Your task to perform on an android device: Search for "razer kraken" on target, select the first entry, add it to the cart, then select checkout. Image 0: 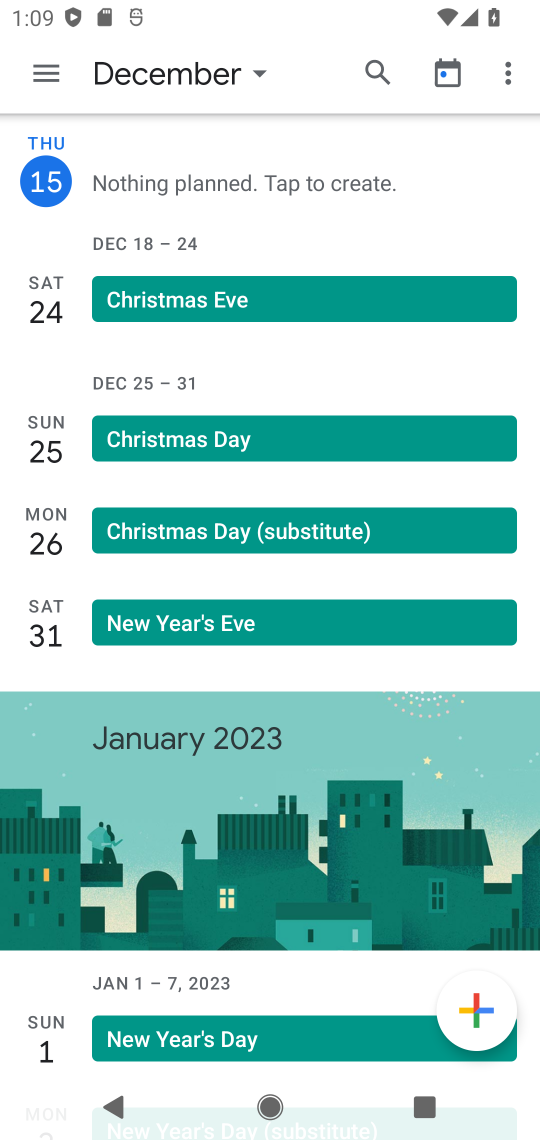
Step 0: press home button
Your task to perform on an android device: Search for "razer kraken" on target, select the first entry, add it to the cart, then select checkout. Image 1: 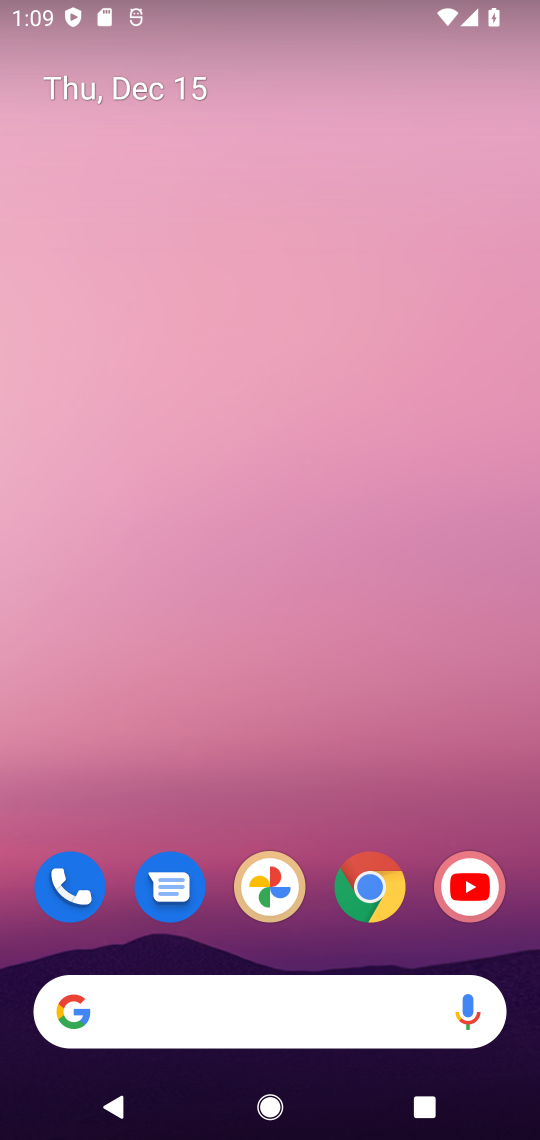
Step 1: click (381, 895)
Your task to perform on an android device: Search for "razer kraken" on target, select the first entry, add it to the cart, then select checkout. Image 2: 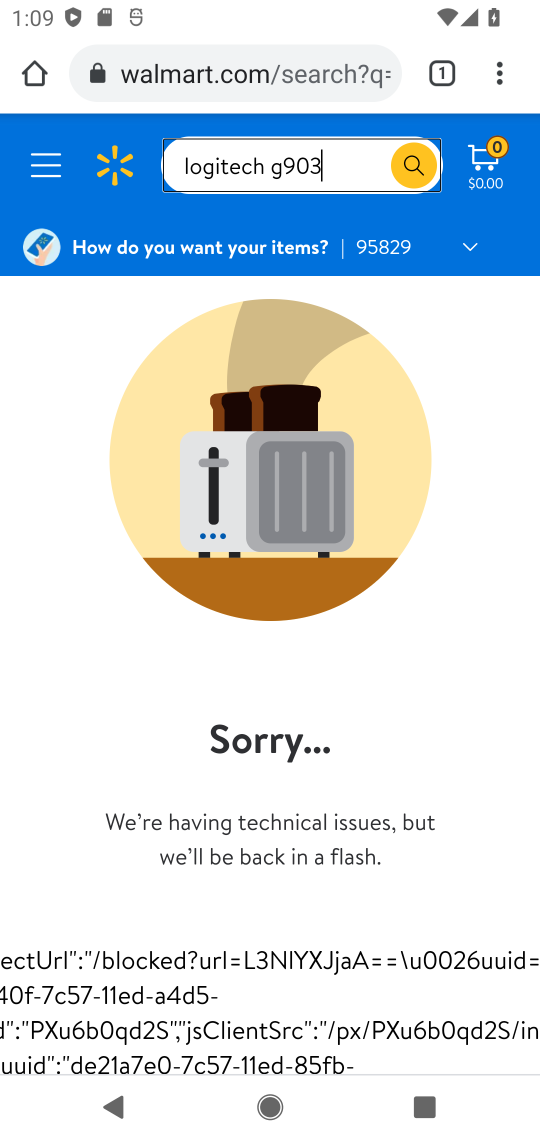
Step 2: click (254, 72)
Your task to perform on an android device: Search for "razer kraken" on target, select the first entry, add it to the cart, then select checkout. Image 3: 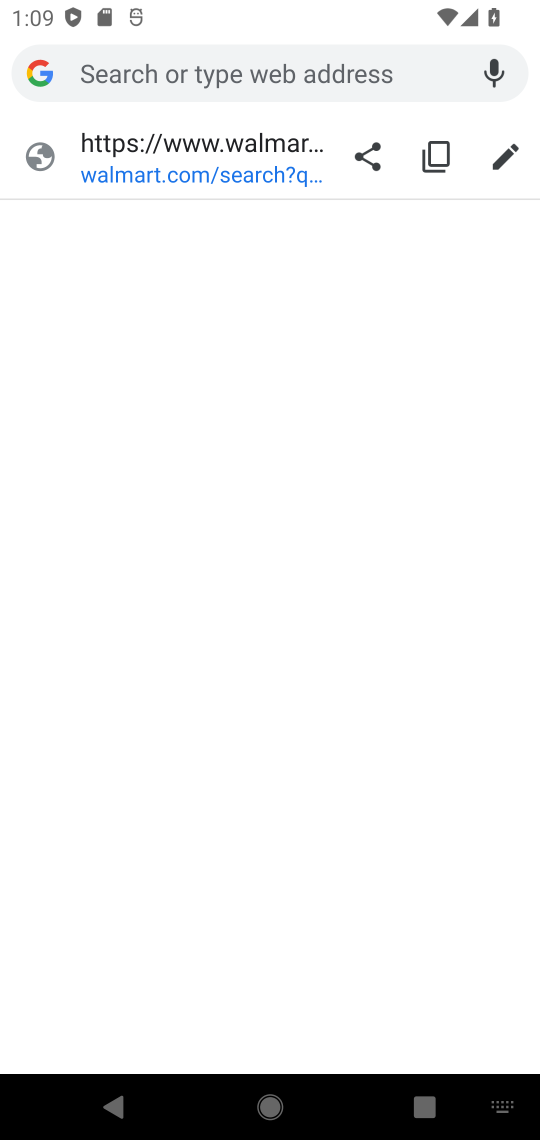
Step 3: type "target.com"
Your task to perform on an android device: Search for "razer kraken" on target, select the first entry, add it to the cart, then select checkout. Image 4: 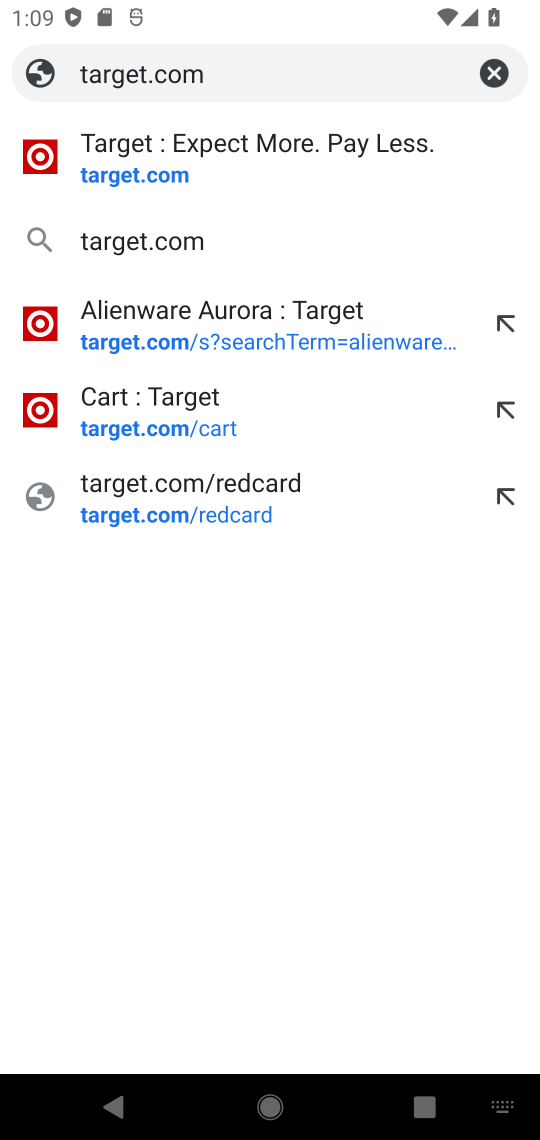
Step 4: click (119, 170)
Your task to perform on an android device: Search for "razer kraken" on target, select the first entry, add it to the cart, then select checkout. Image 5: 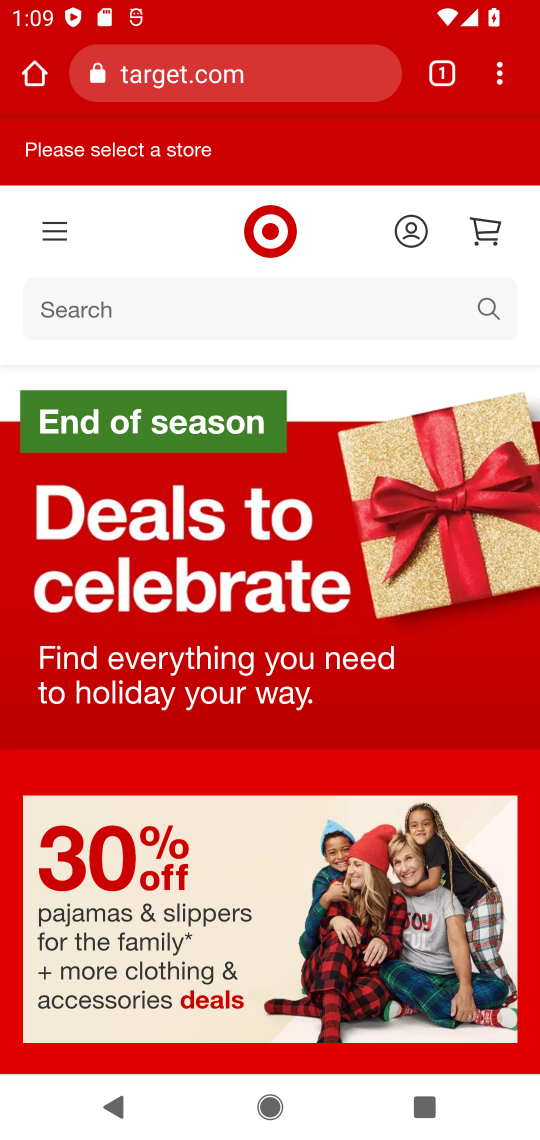
Step 5: click (98, 313)
Your task to perform on an android device: Search for "razer kraken" on target, select the first entry, add it to the cart, then select checkout. Image 6: 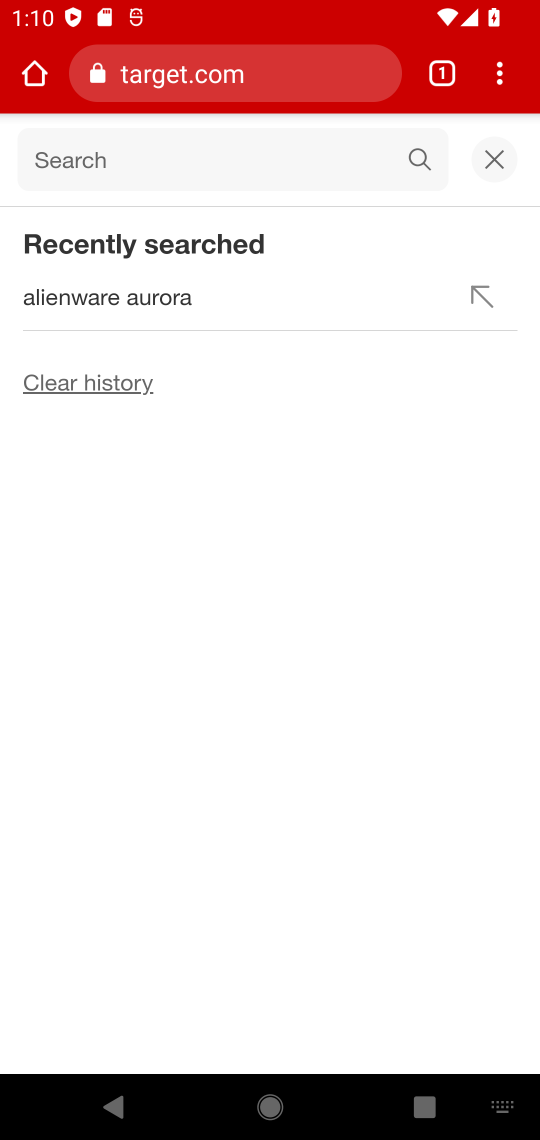
Step 6: type "razer kraken"
Your task to perform on an android device: Search for "razer kraken" on target, select the first entry, add it to the cart, then select checkout. Image 7: 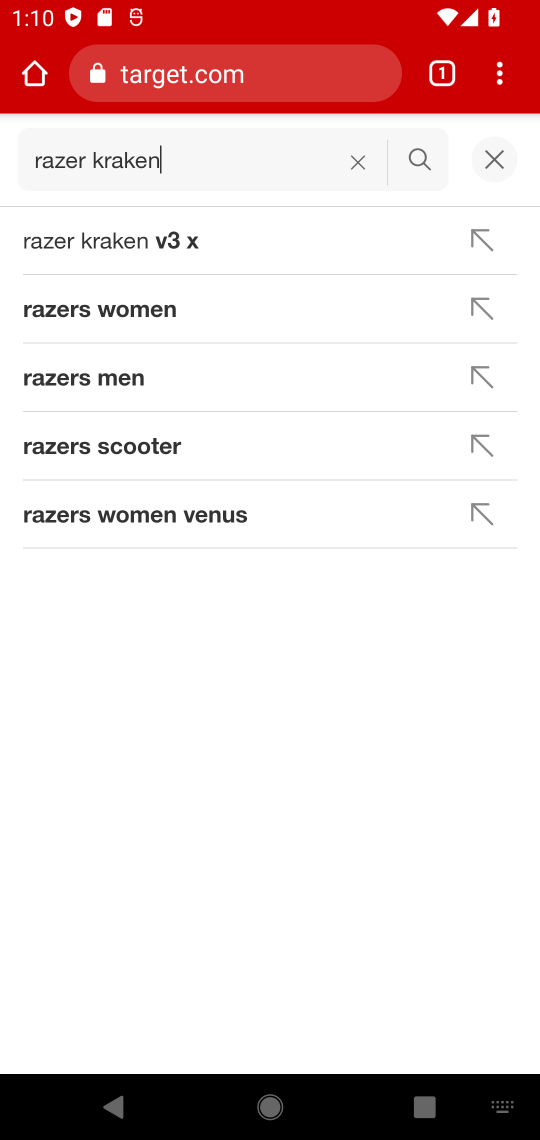
Step 7: click (408, 157)
Your task to perform on an android device: Search for "razer kraken" on target, select the first entry, add it to the cart, then select checkout. Image 8: 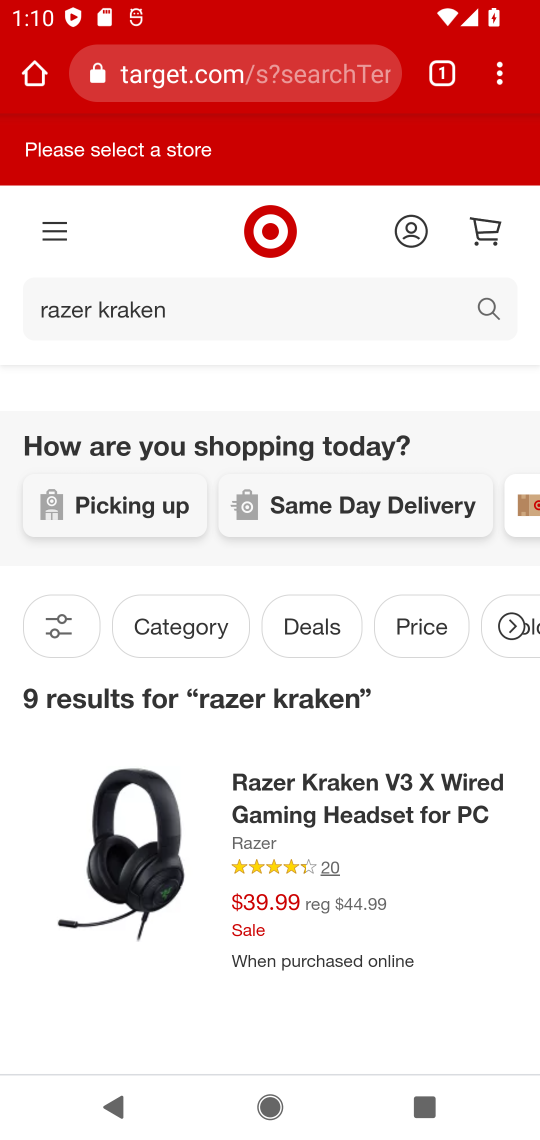
Step 8: click (324, 781)
Your task to perform on an android device: Search for "razer kraken" on target, select the first entry, add it to the cart, then select checkout. Image 9: 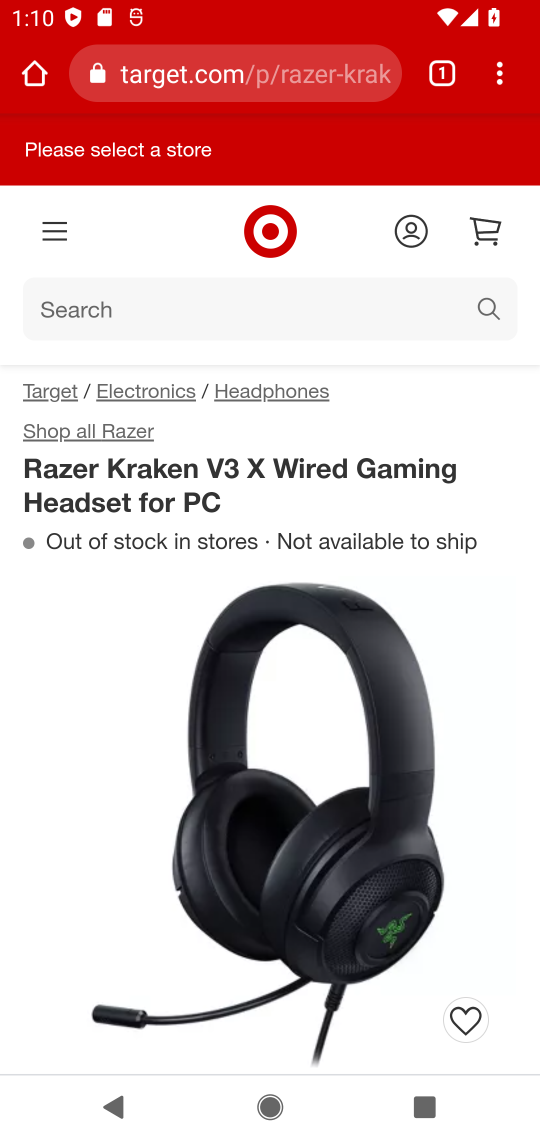
Step 9: drag from (308, 807) to (303, 150)
Your task to perform on an android device: Search for "razer kraken" on target, select the first entry, add it to the cart, then select checkout. Image 10: 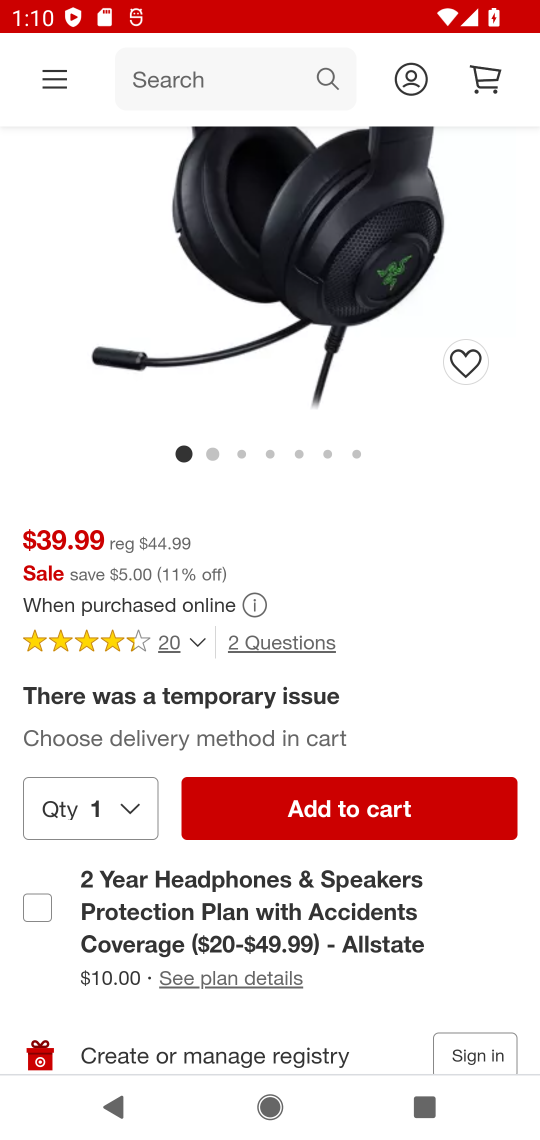
Step 10: click (349, 803)
Your task to perform on an android device: Search for "razer kraken" on target, select the first entry, add it to the cart, then select checkout. Image 11: 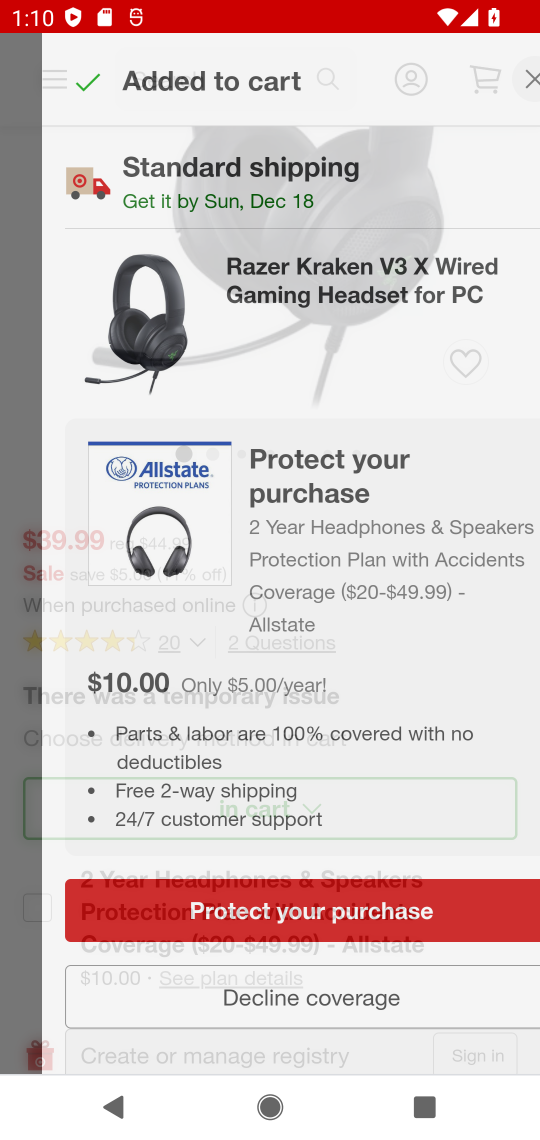
Step 11: click (530, 76)
Your task to perform on an android device: Search for "razer kraken" on target, select the first entry, add it to the cart, then select checkout. Image 12: 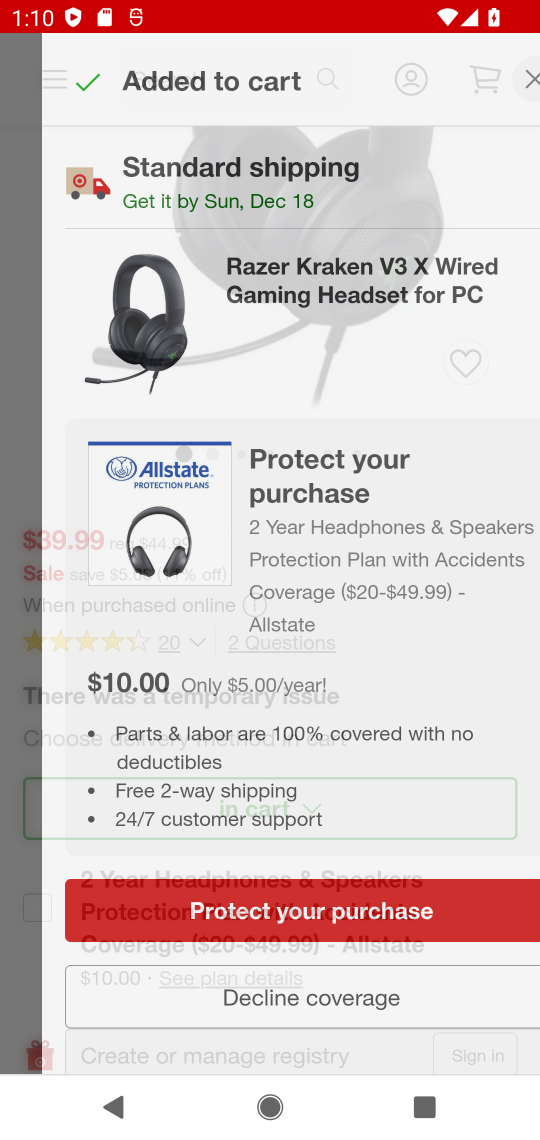
Step 12: drag from (494, 217) to (430, 290)
Your task to perform on an android device: Search for "razer kraken" on target, select the first entry, add it to the cart, then select checkout. Image 13: 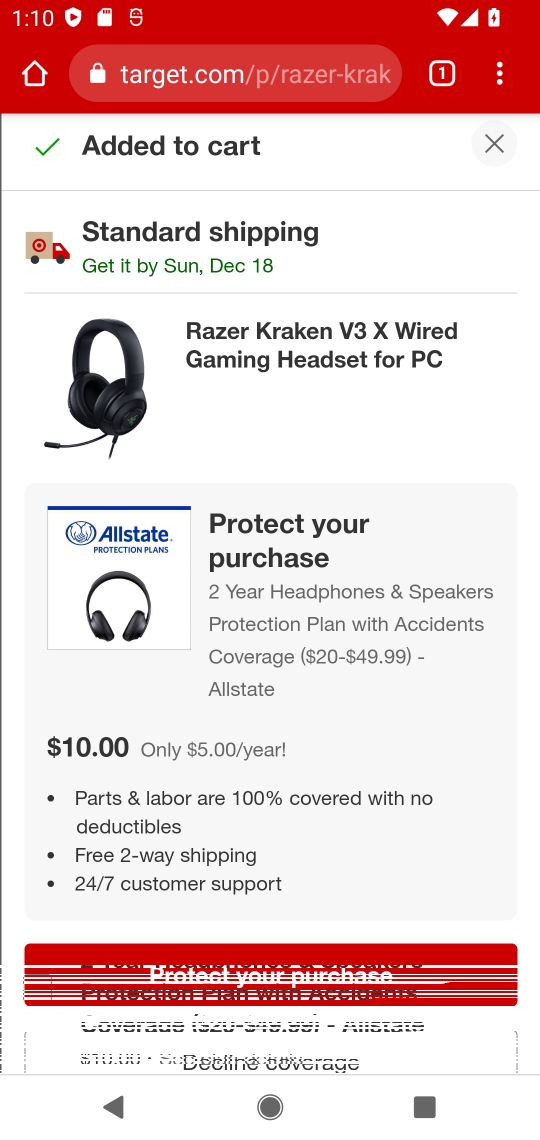
Step 13: click (494, 142)
Your task to perform on an android device: Search for "razer kraken" on target, select the first entry, add it to the cart, then select checkout. Image 14: 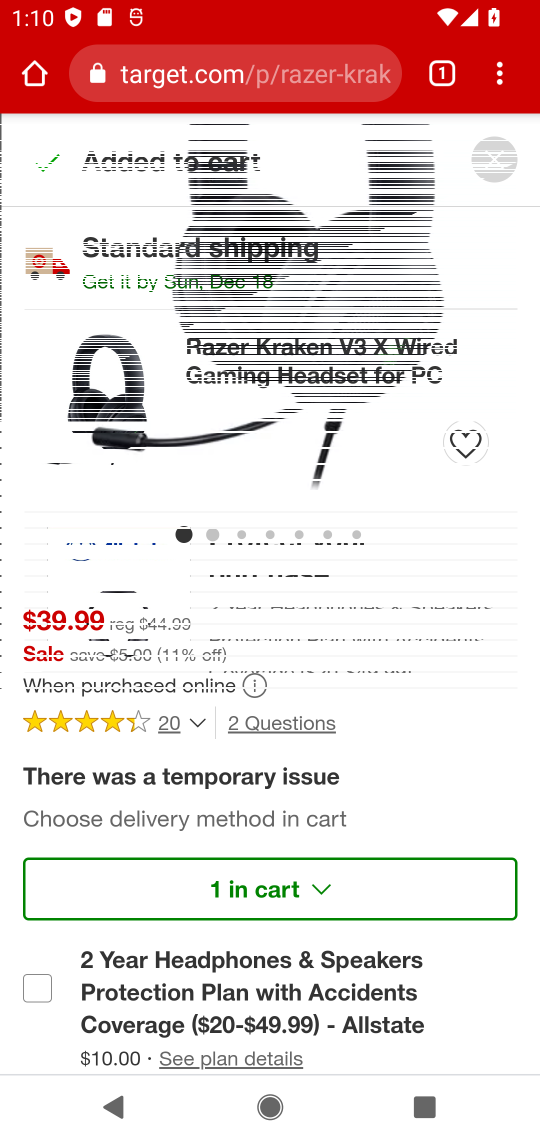
Step 14: click (437, 769)
Your task to perform on an android device: Search for "razer kraken" on target, select the first entry, add it to the cart, then select checkout. Image 15: 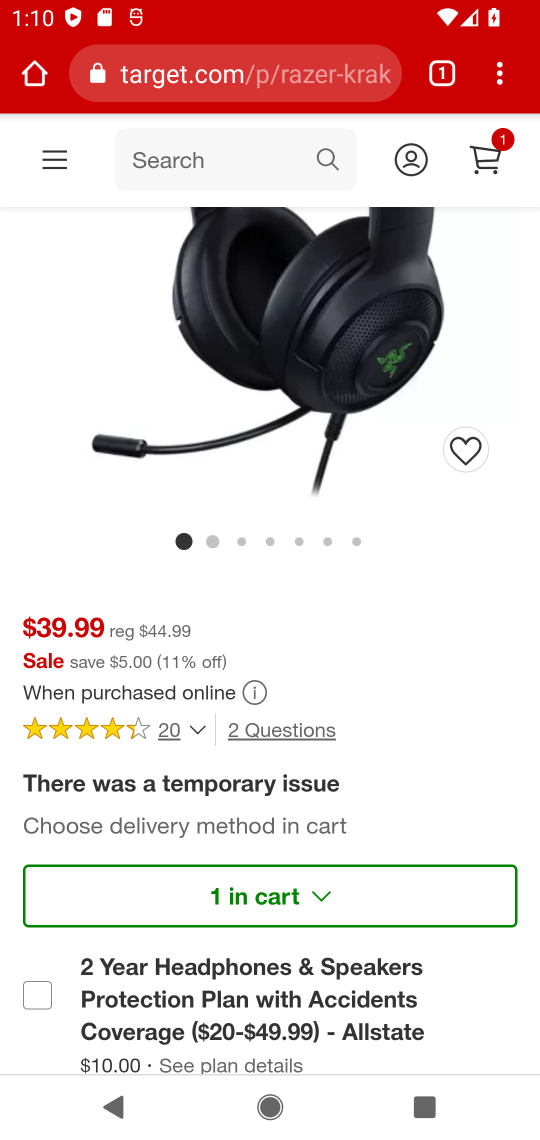
Step 15: click (489, 161)
Your task to perform on an android device: Search for "razer kraken" on target, select the first entry, add it to the cart, then select checkout. Image 16: 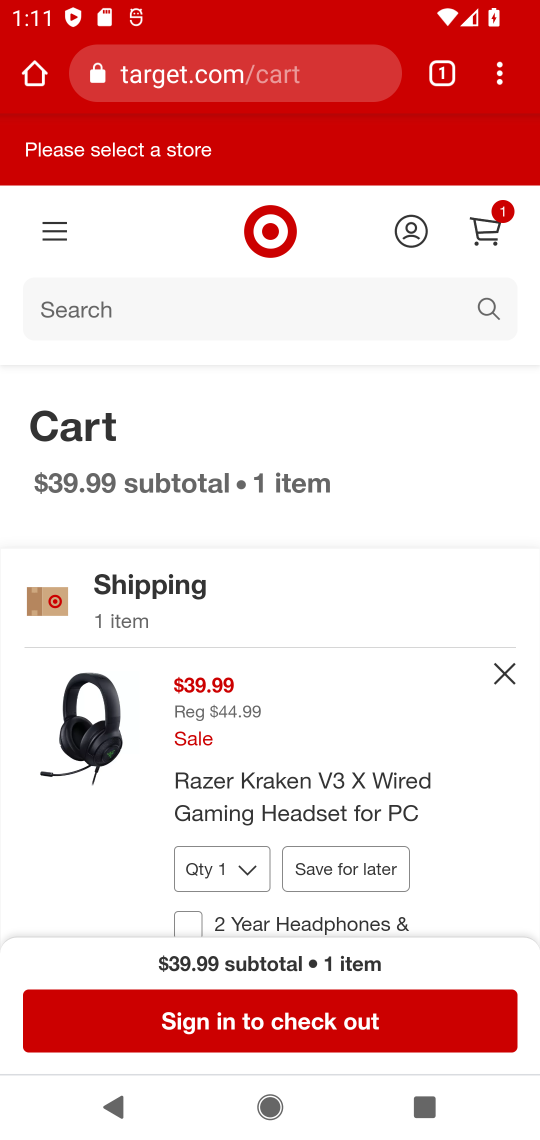
Step 16: click (245, 1030)
Your task to perform on an android device: Search for "razer kraken" on target, select the first entry, add it to the cart, then select checkout. Image 17: 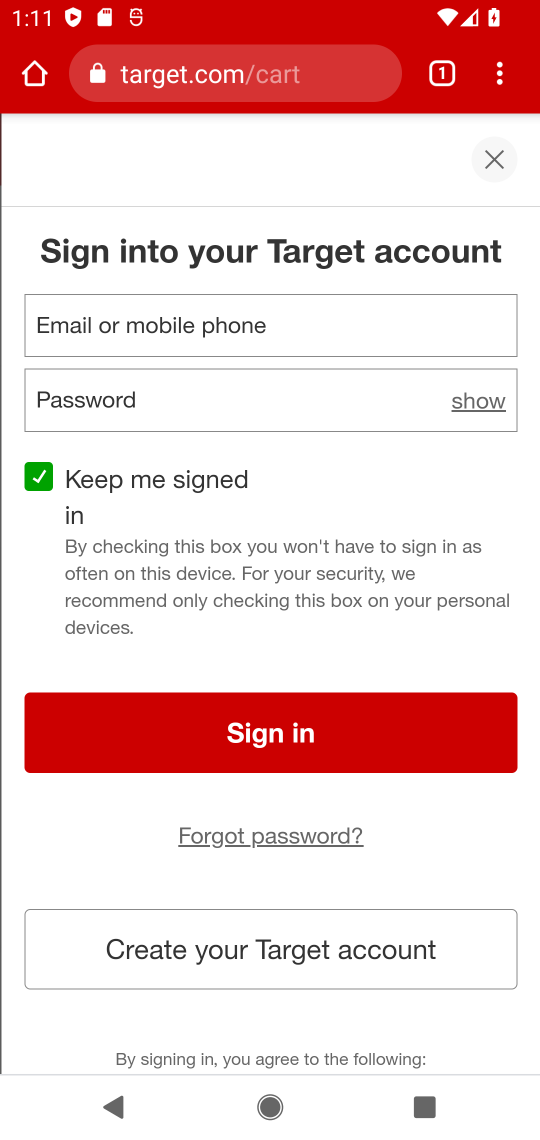
Step 17: task complete